Your task to perform on an android device: Open calendar and show me the second week of next month Image 0: 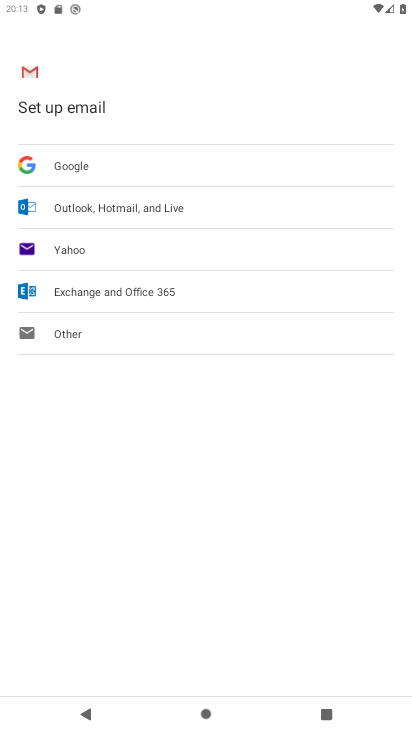
Step 0: press home button
Your task to perform on an android device: Open calendar and show me the second week of next month Image 1: 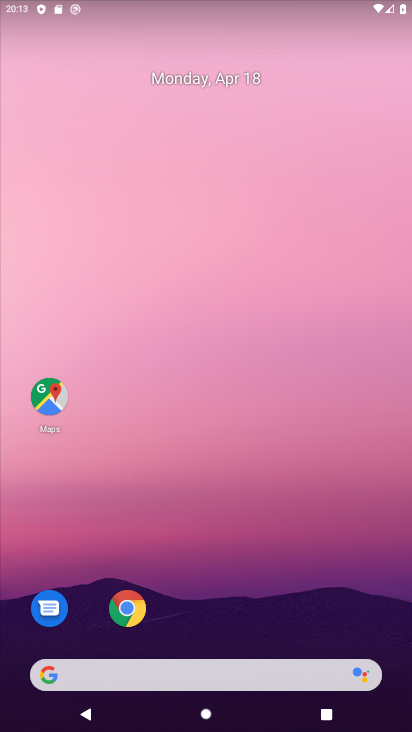
Step 1: drag from (221, 590) to (209, 170)
Your task to perform on an android device: Open calendar and show me the second week of next month Image 2: 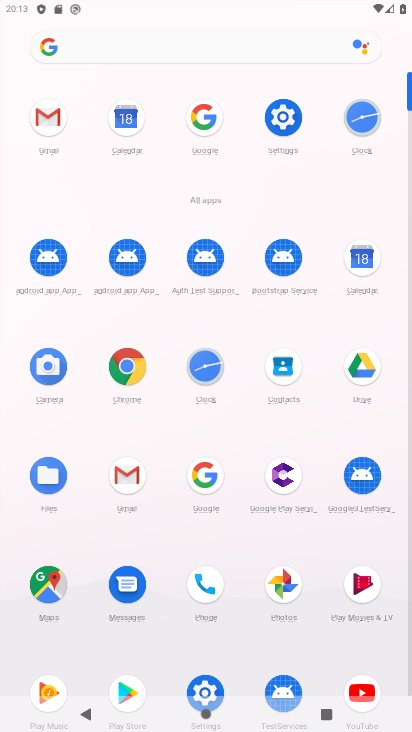
Step 2: click (362, 259)
Your task to perform on an android device: Open calendar and show me the second week of next month Image 3: 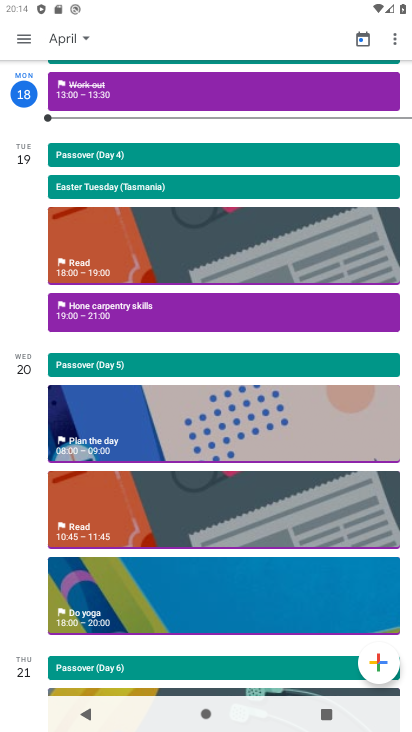
Step 3: click (81, 41)
Your task to perform on an android device: Open calendar and show me the second week of next month Image 4: 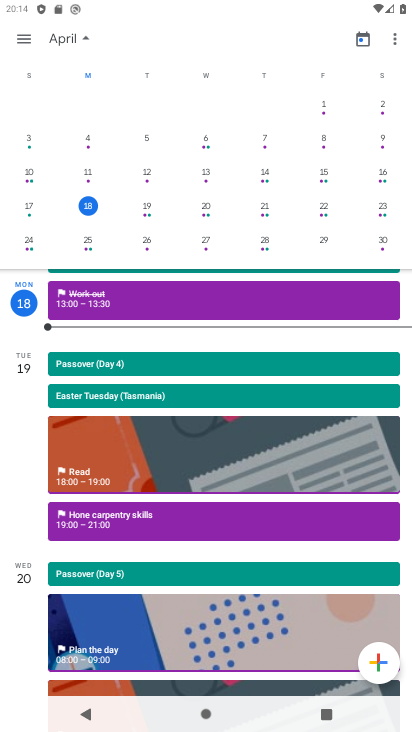
Step 4: drag from (364, 249) to (7, 203)
Your task to perform on an android device: Open calendar and show me the second week of next month Image 5: 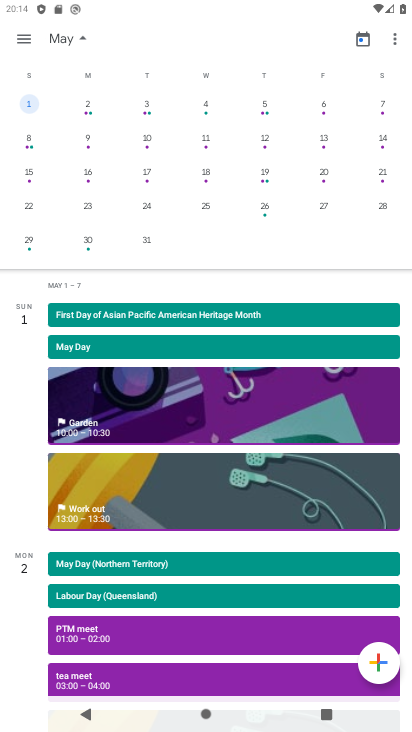
Step 5: click (90, 134)
Your task to perform on an android device: Open calendar and show me the second week of next month Image 6: 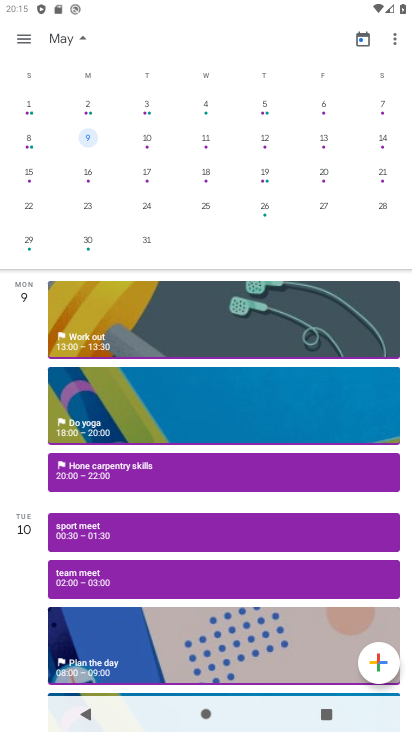
Step 6: task complete